Your task to perform on an android device: What's on the menu at McDonalds? Image 0: 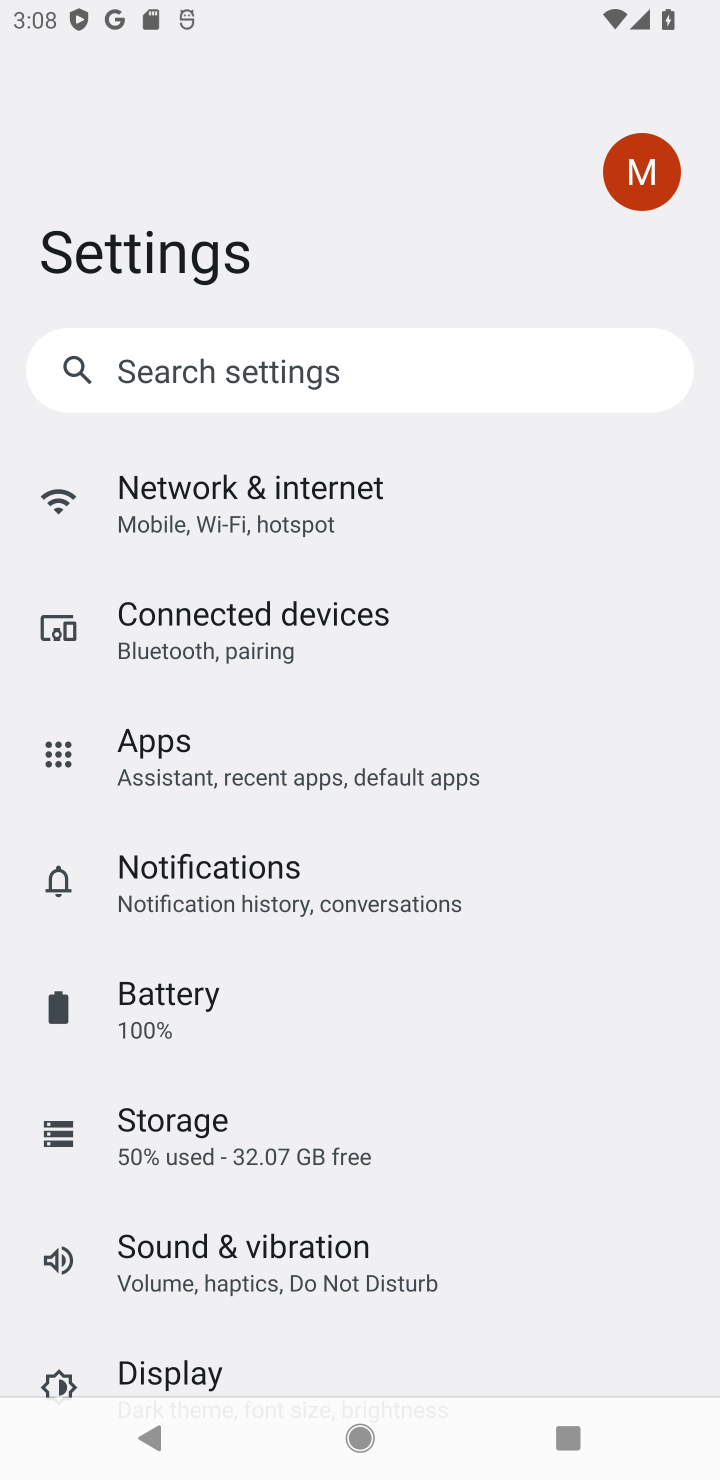
Step 0: press home button
Your task to perform on an android device: What's on the menu at McDonalds? Image 1: 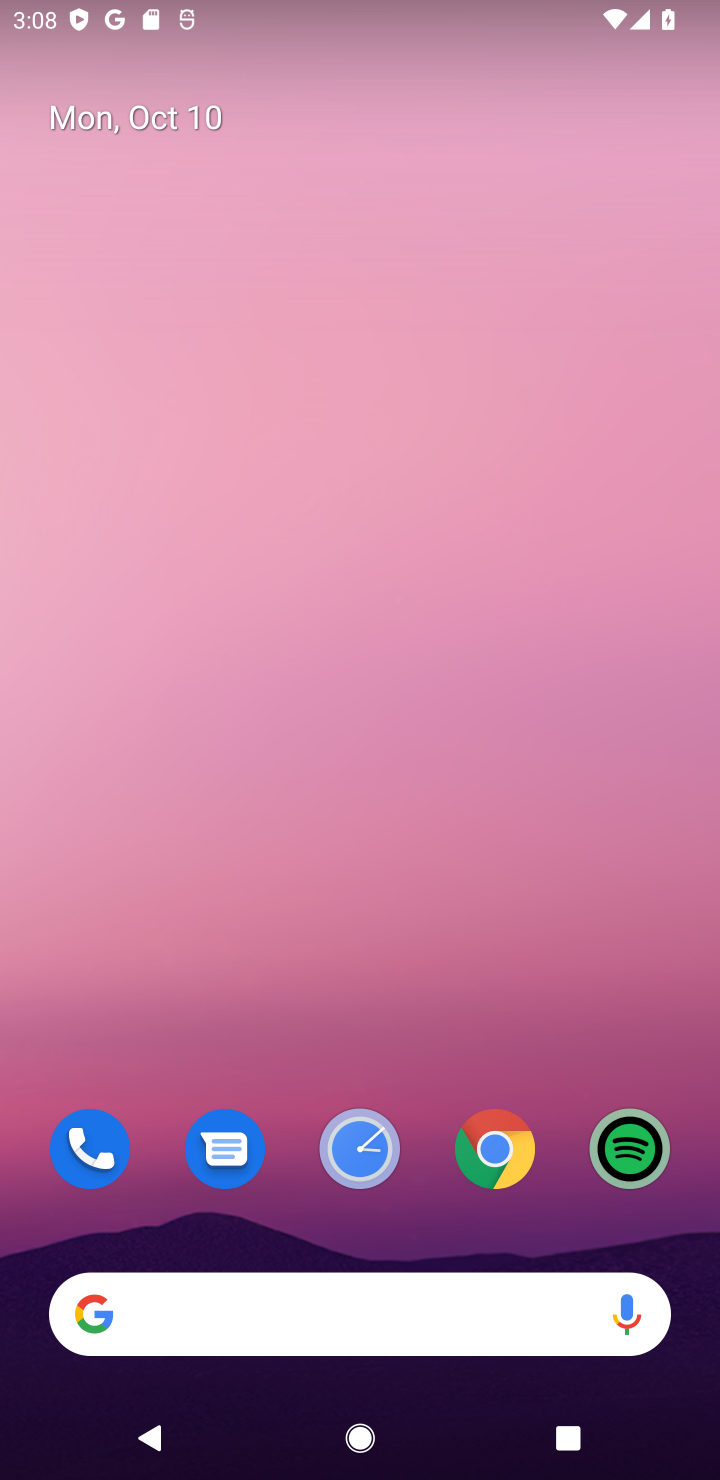
Step 1: click (359, 1300)
Your task to perform on an android device: What's on the menu at McDonalds? Image 2: 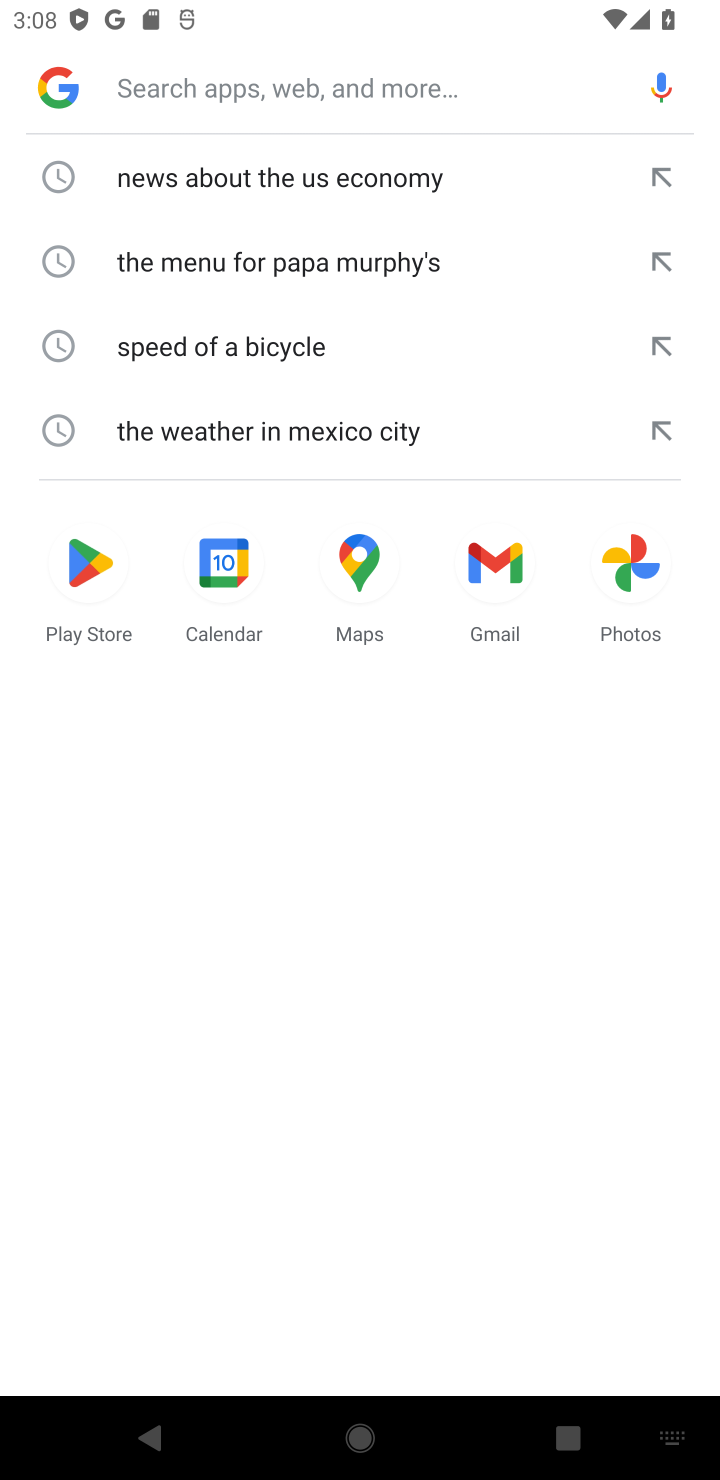
Step 2: type "the menu at McDonalds"
Your task to perform on an android device: What's on the menu at McDonalds? Image 3: 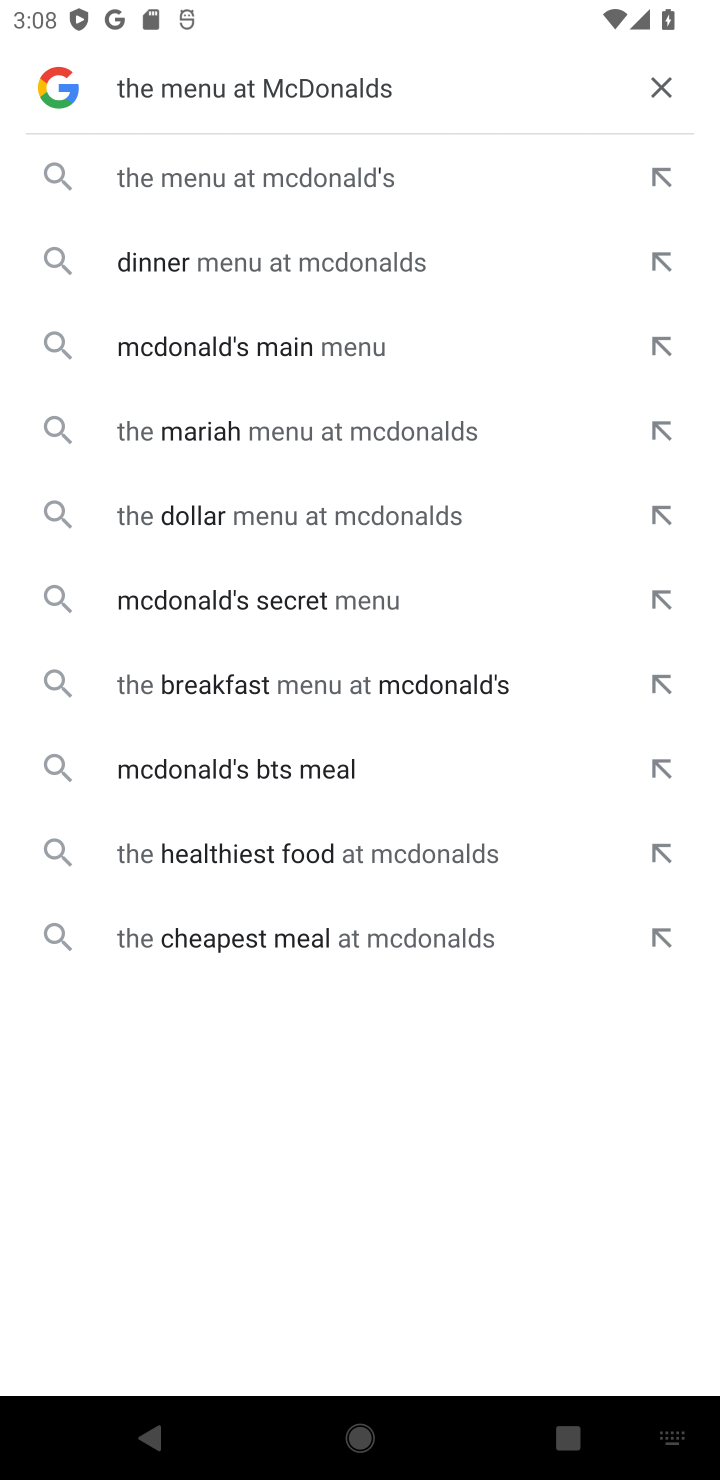
Step 3: click (313, 173)
Your task to perform on an android device: What's on the menu at McDonalds? Image 4: 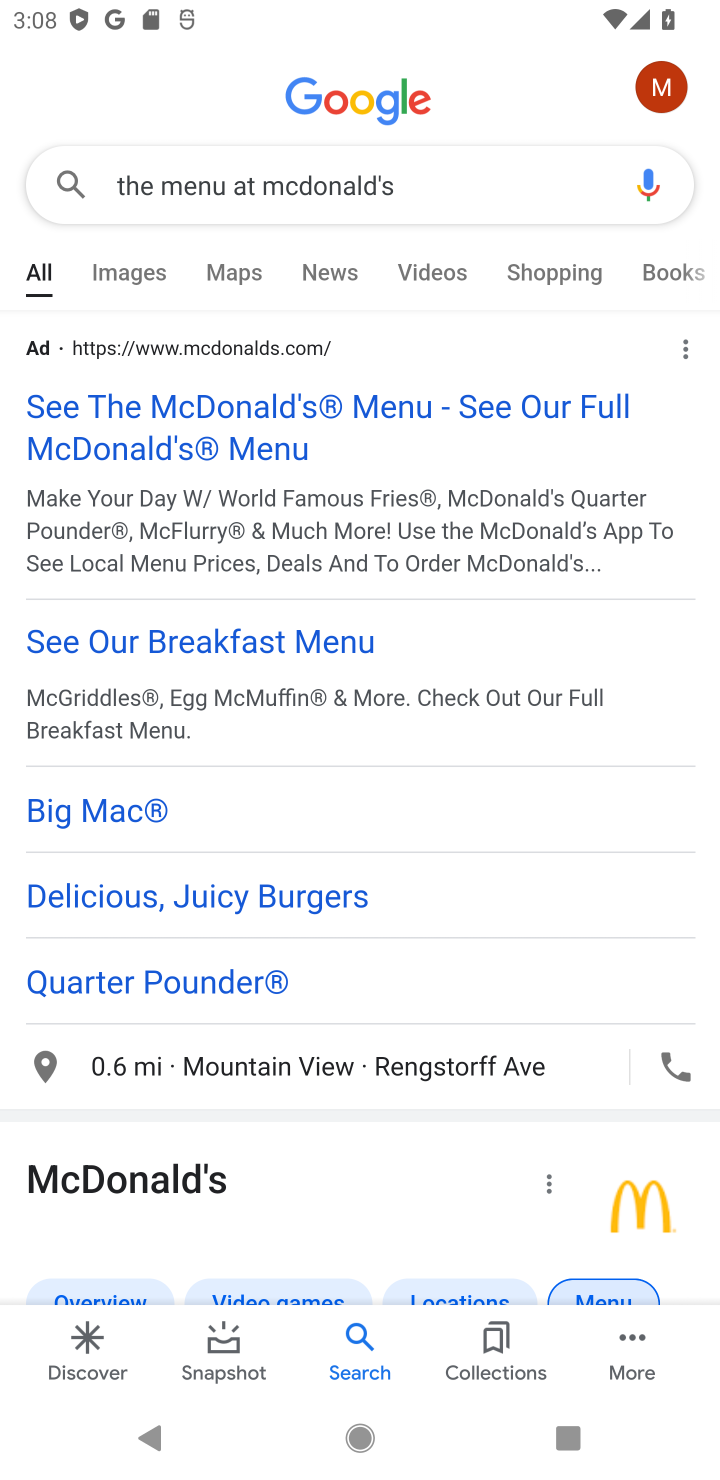
Step 4: click (310, 412)
Your task to perform on an android device: What's on the menu at McDonalds? Image 5: 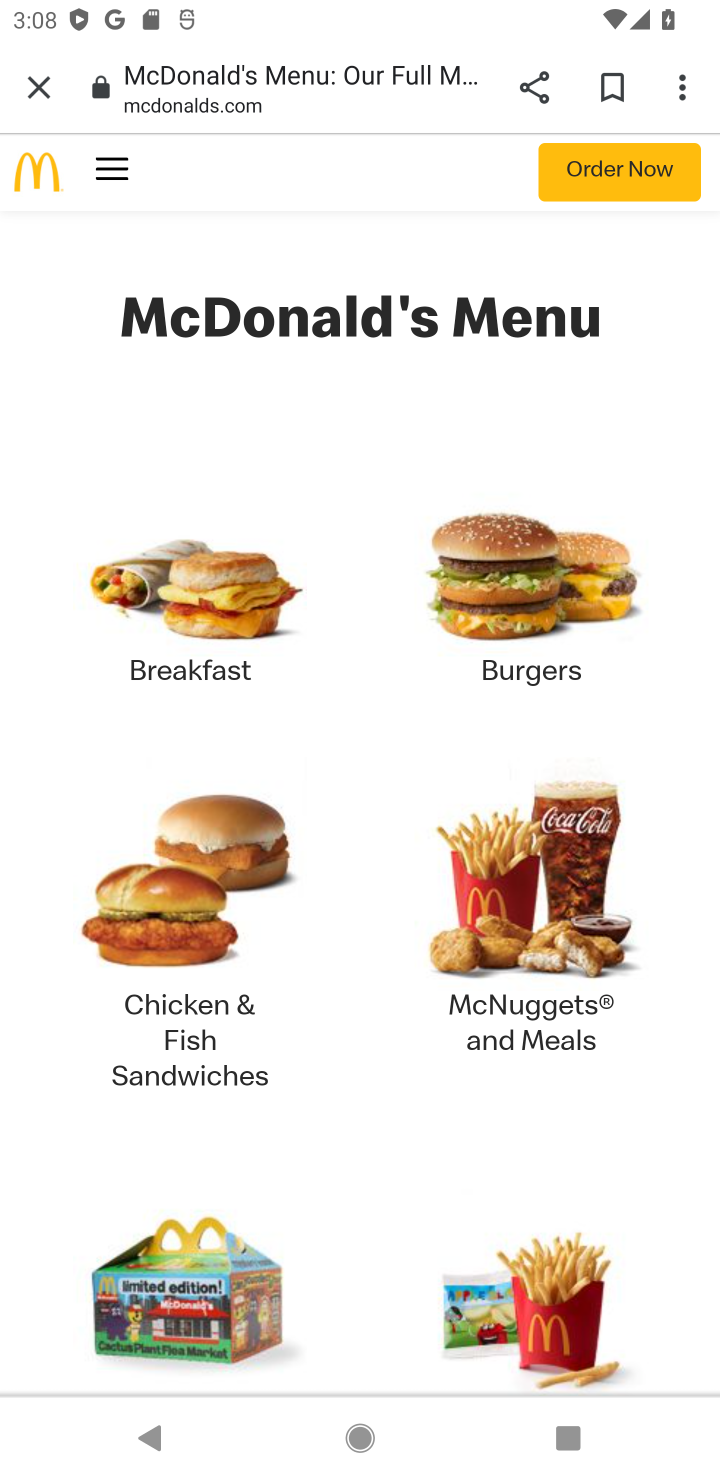
Step 5: task complete